Your task to perform on an android device: Go to privacy settings Image 0: 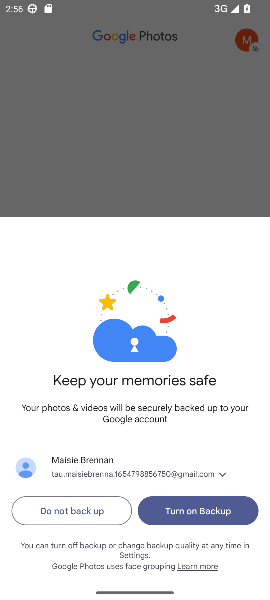
Step 0: press home button
Your task to perform on an android device: Go to privacy settings Image 1: 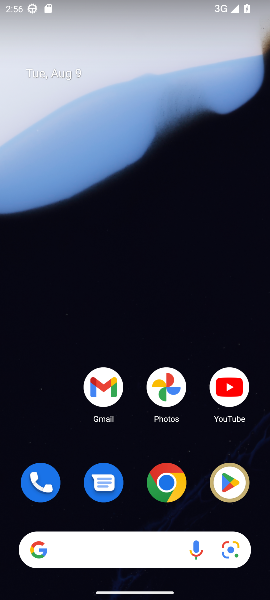
Step 1: drag from (134, 449) to (125, 112)
Your task to perform on an android device: Go to privacy settings Image 2: 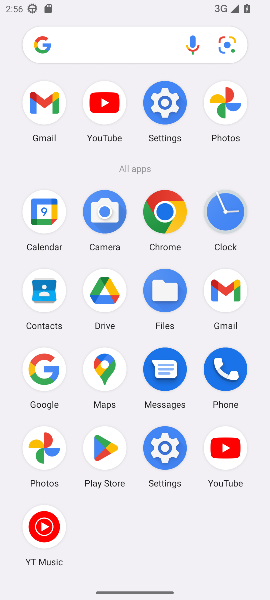
Step 2: click (188, 112)
Your task to perform on an android device: Go to privacy settings Image 3: 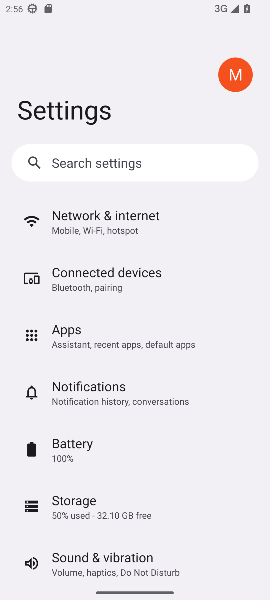
Step 3: drag from (119, 499) to (152, 211)
Your task to perform on an android device: Go to privacy settings Image 4: 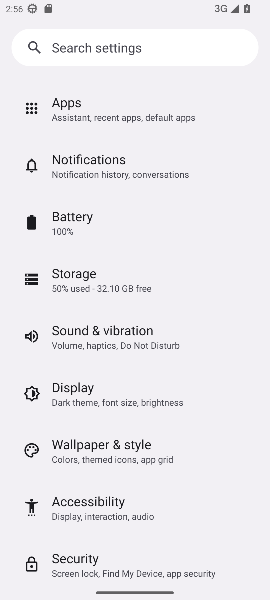
Step 4: drag from (107, 523) to (155, 216)
Your task to perform on an android device: Go to privacy settings Image 5: 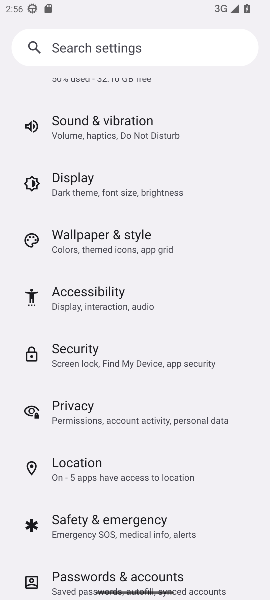
Step 5: click (117, 416)
Your task to perform on an android device: Go to privacy settings Image 6: 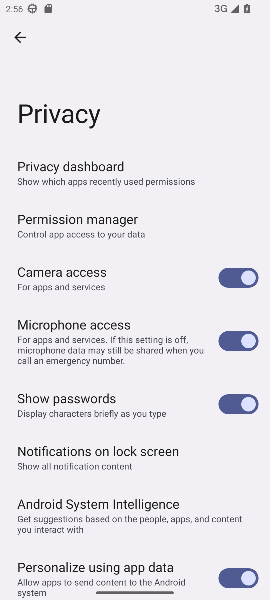
Step 6: task complete